Your task to perform on an android device: What's a good restaurant in Boston? Image 0: 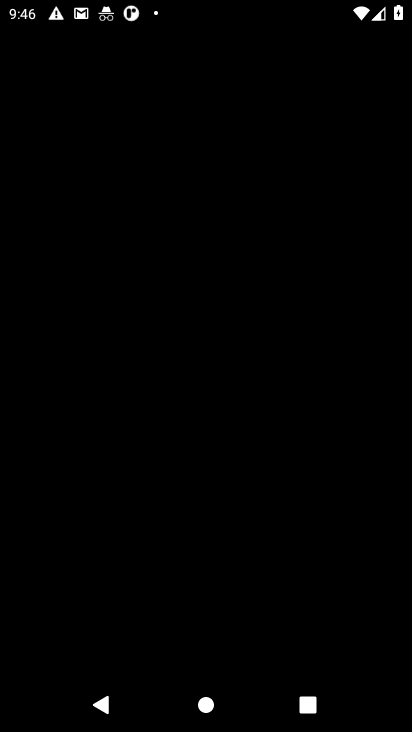
Step 0: press home button
Your task to perform on an android device: What's a good restaurant in Boston? Image 1: 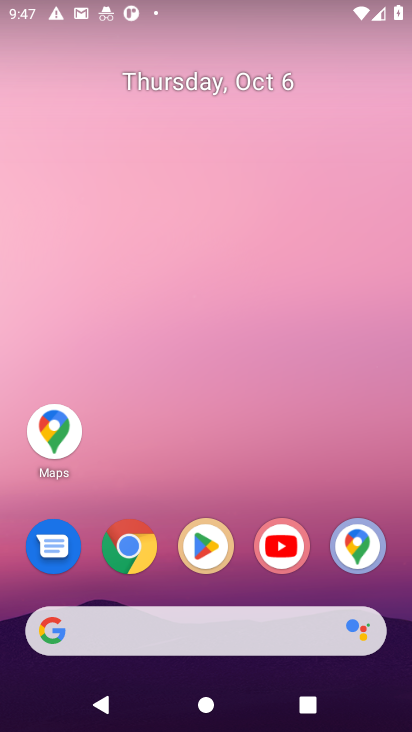
Step 1: click (128, 545)
Your task to perform on an android device: What's a good restaurant in Boston? Image 2: 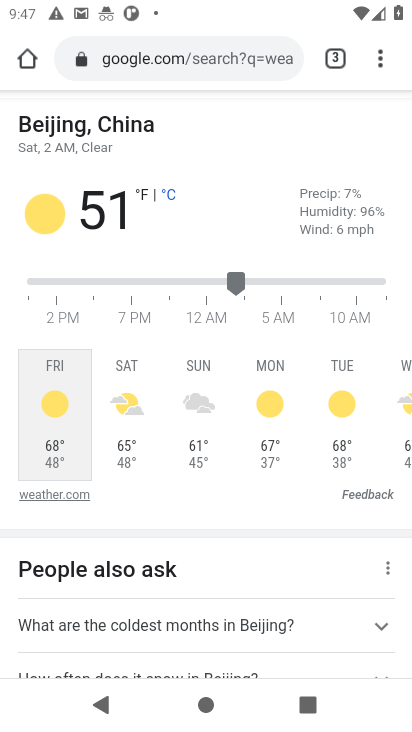
Step 2: click (208, 39)
Your task to perform on an android device: What's a good restaurant in Boston? Image 3: 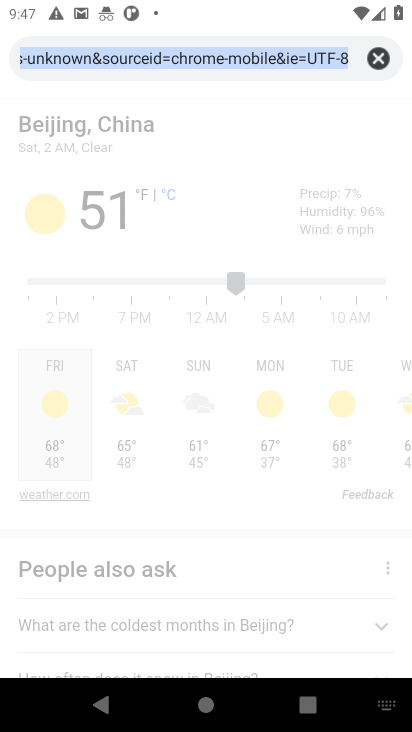
Step 3: click (374, 56)
Your task to perform on an android device: What's a good restaurant in Boston? Image 4: 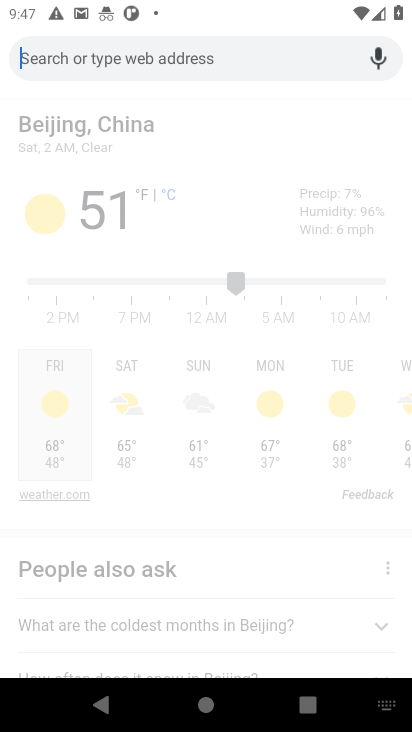
Step 4: type "good restaurant in boston?"
Your task to perform on an android device: What's a good restaurant in Boston? Image 5: 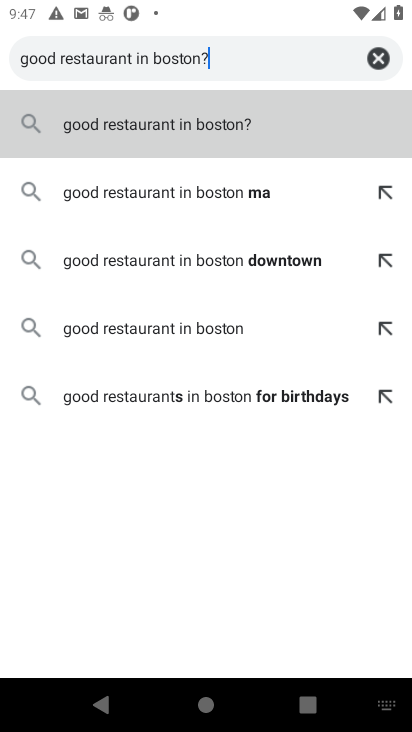
Step 5: click (120, 127)
Your task to perform on an android device: What's a good restaurant in Boston? Image 6: 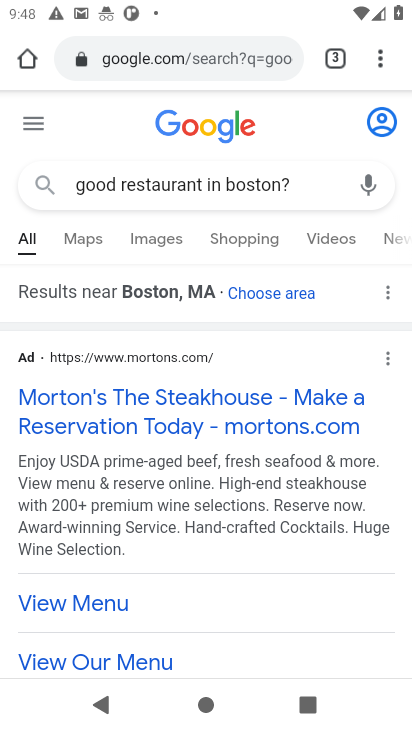
Step 6: drag from (118, 540) to (152, 180)
Your task to perform on an android device: What's a good restaurant in Boston? Image 7: 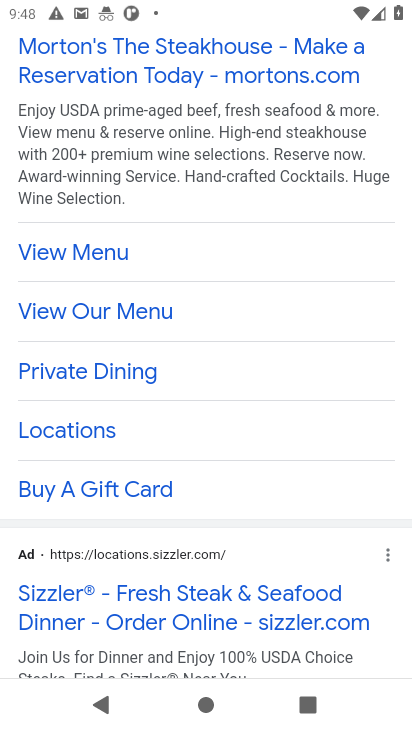
Step 7: drag from (217, 521) to (213, 235)
Your task to perform on an android device: What's a good restaurant in Boston? Image 8: 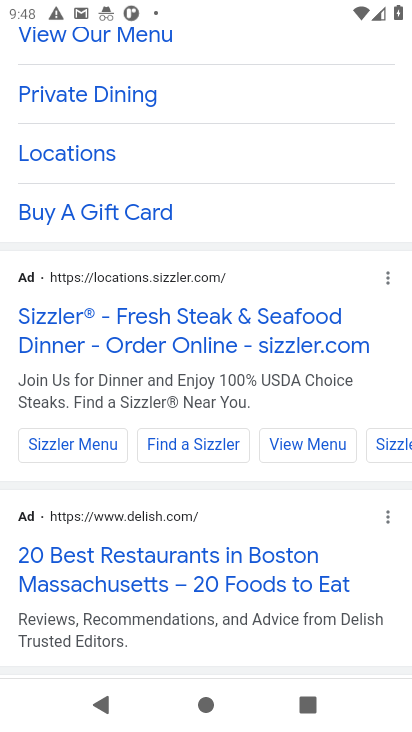
Step 8: click (105, 554)
Your task to perform on an android device: What's a good restaurant in Boston? Image 9: 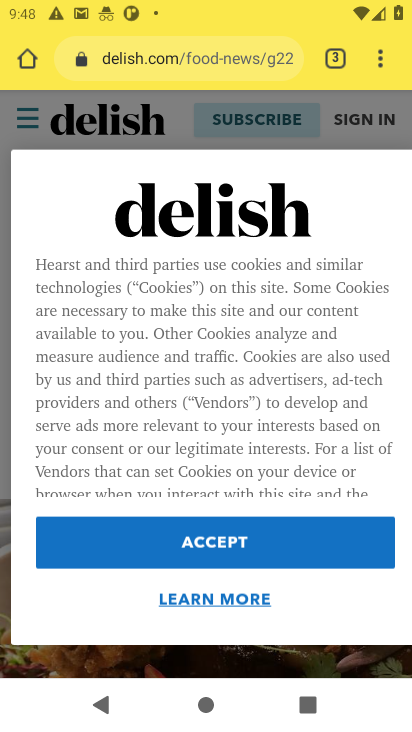
Step 9: drag from (315, 428) to (320, 358)
Your task to perform on an android device: What's a good restaurant in Boston? Image 10: 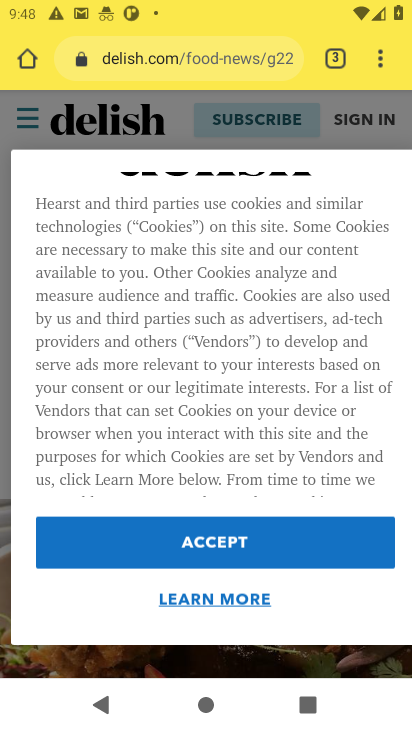
Step 10: click (208, 542)
Your task to perform on an android device: What's a good restaurant in Boston? Image 11: 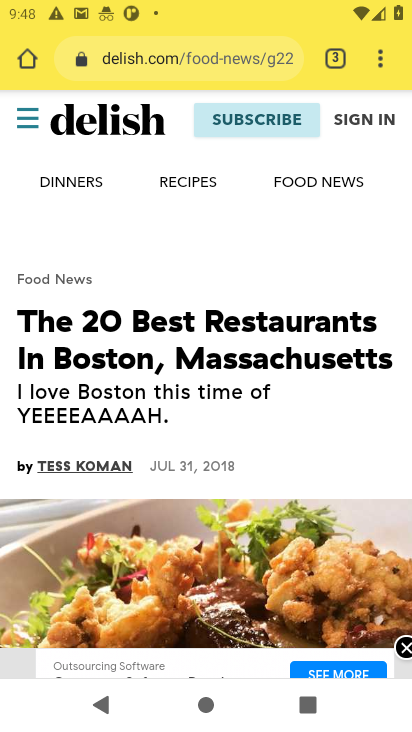
Step 11: task complete